Your task to perform on an android device: change the clock style Image 0: 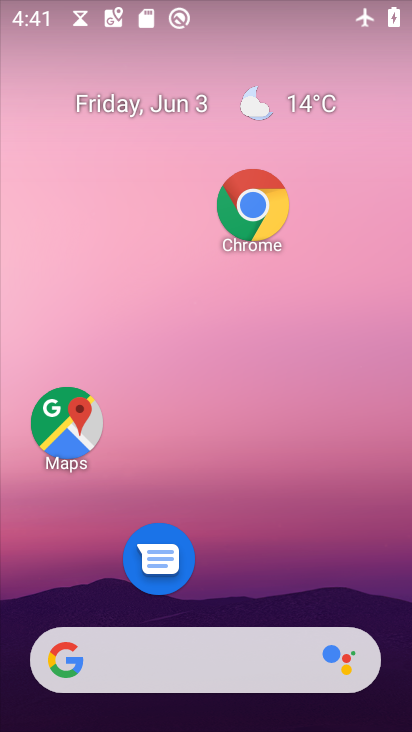
Step 0: drag from (237, 702) to (121, 240)
Your task to perform on an android device: change the clock style Image 1: 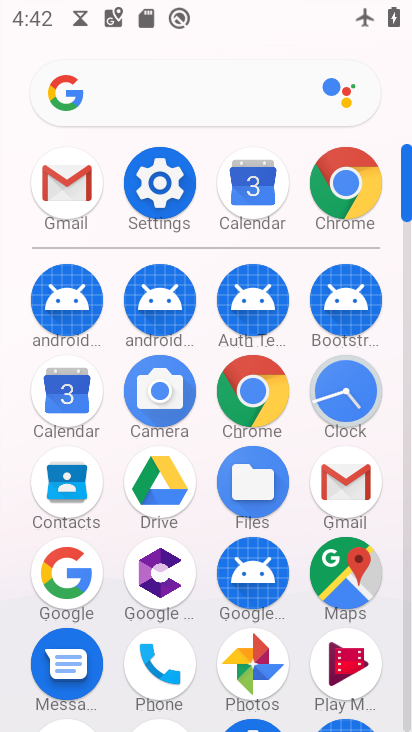
Step 1: click (350, 392)
Your task to perform on an android device: change the clock style Image 2: 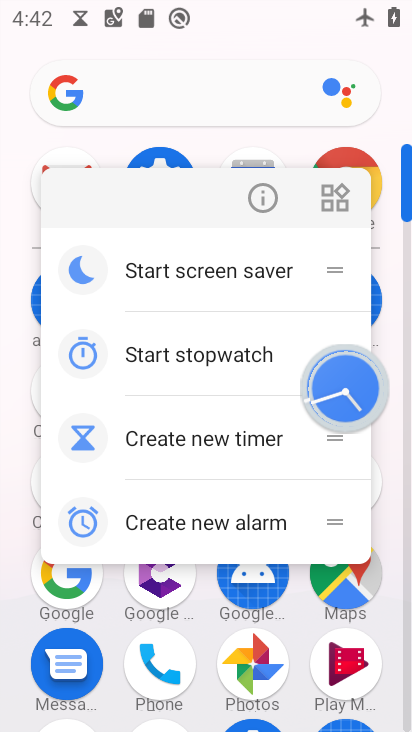
Step 2: click (353, 389)
Your task to perform on an android device: change the clock style Image 3: 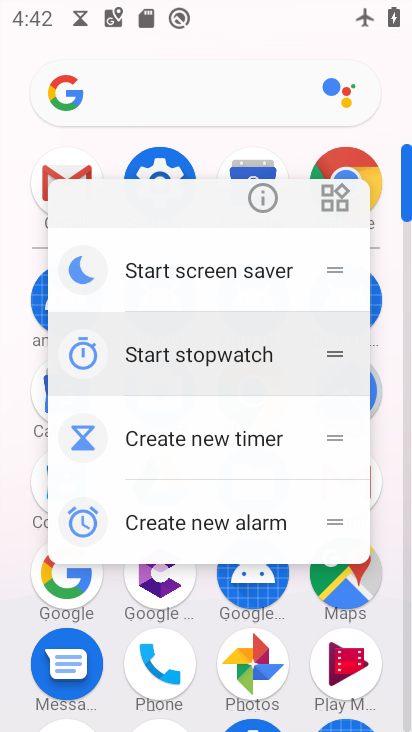
Step 3: click (351, 389)
Your task to perform on an android device: change the clock style Image 4: 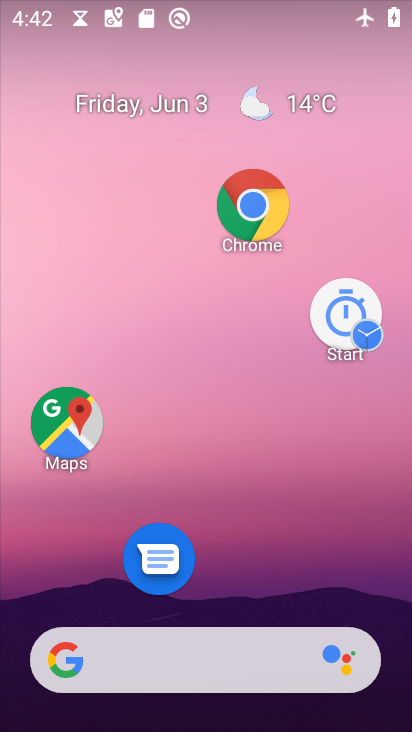
Step 4: drag from (228, 566) to (167, 135)
Your task to perform on an android device: change the clock style Image 5: 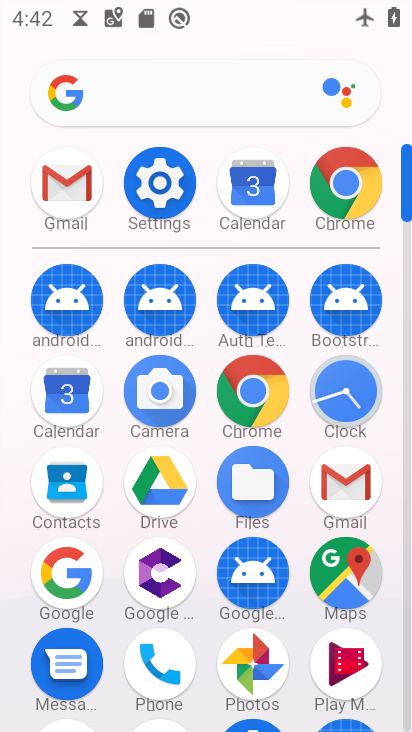
Step 5: click (325, 406)
Your task to perform on an android device: change the clock style Image 6: 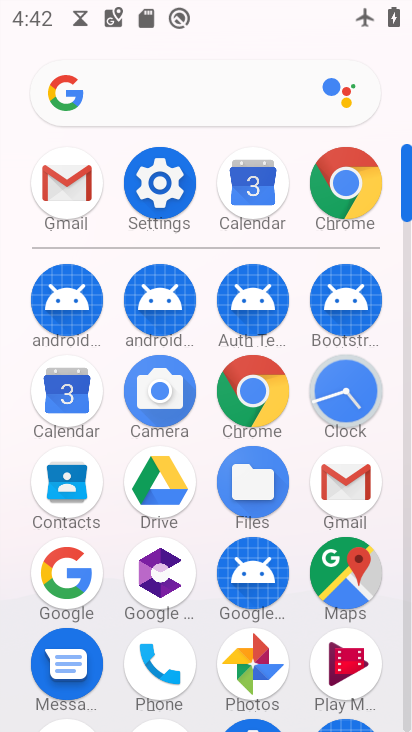
Step 6: click (326, 406)
Your task to perform on an android device: change the clock style Image 7: 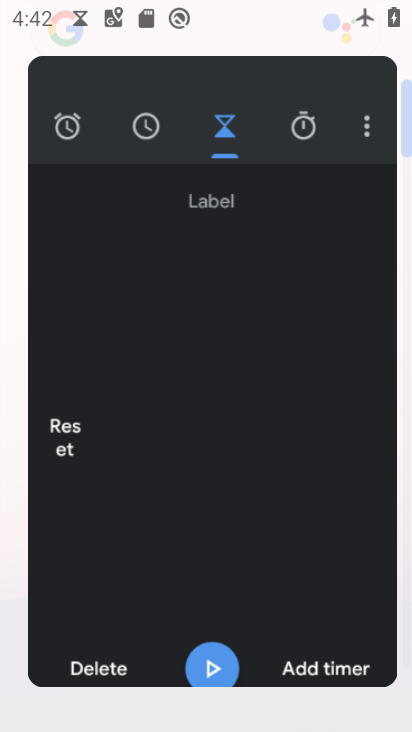
Step 7: click (328, 404)
Your task to perform on an android device: change the clock style Image 8: 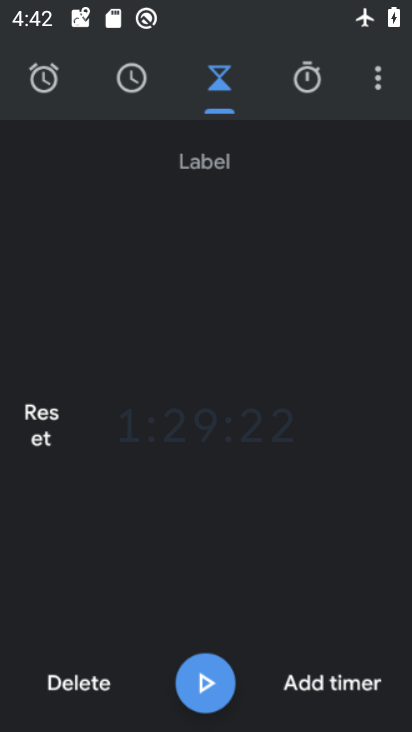
Step 8: click (330, 402)
Your task to perform on an android device: change the clock style Image 9: 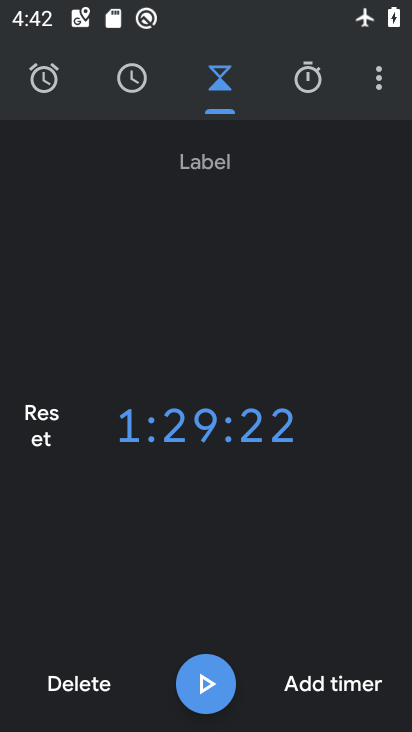
Step 9: click (335, 400)
Your task to perform on an android device: change the clock style Image 10: 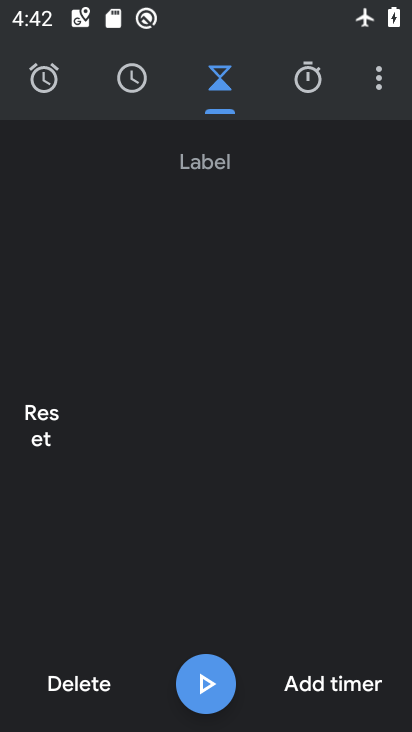
Step 10: click (383, 89)
Your task to perform on an android device: change the clock style Image 11: 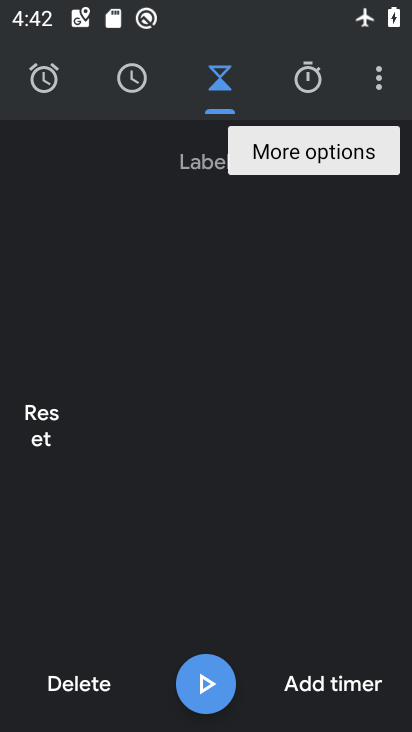
Step 11: click (377, 97)
Your task to perform on an android device: change the clock style Image 12: 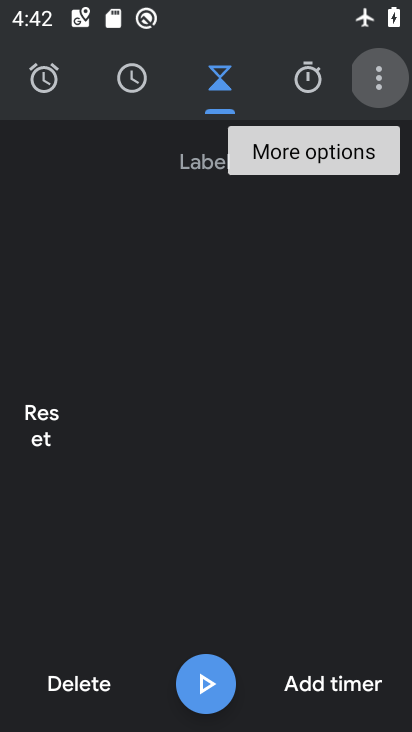
Step 12: click (377, 97)
Your task to perform on an android device: change the clock style Image 13: 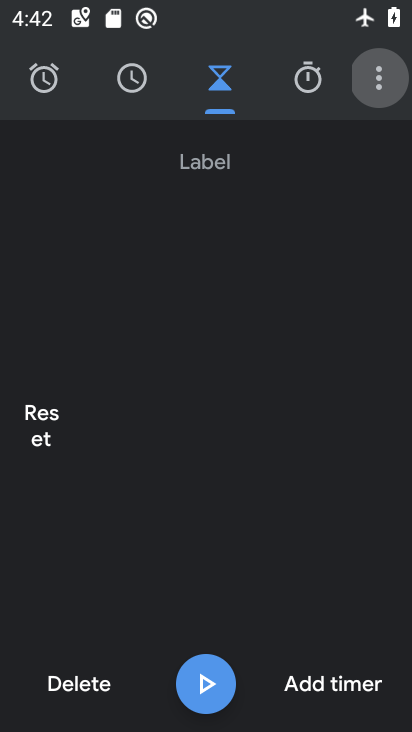
Step 13: click (377, 97)
Your task to perform on an android device: change the clock style Image 14: 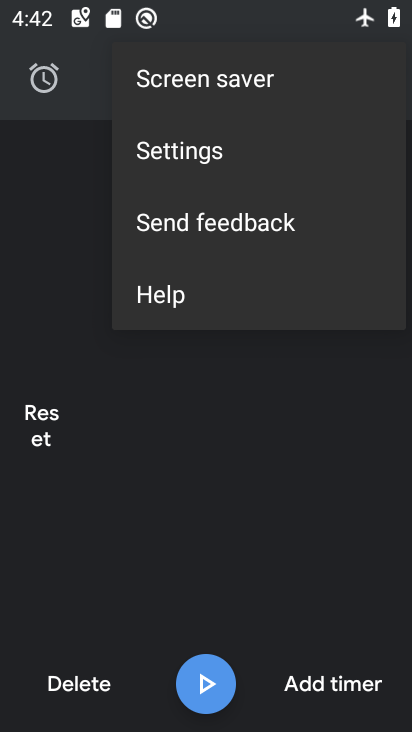
Step 14: click (377, 97)
Your task to perform on an android device: change the clock style Image 15: 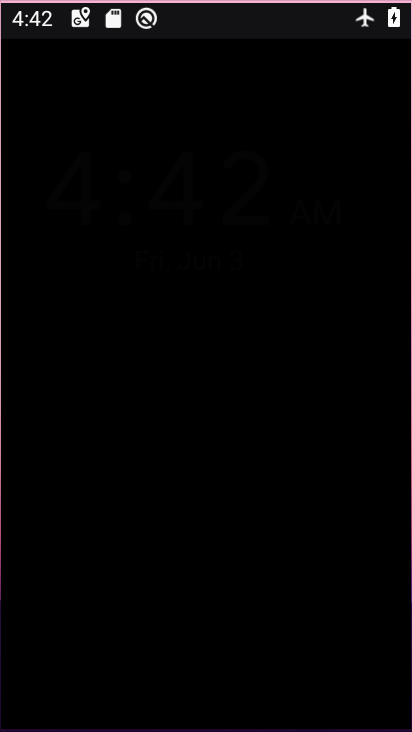
Step 15: click (208, 146)
Your task to perform on an android device: change the clock style Image 16: 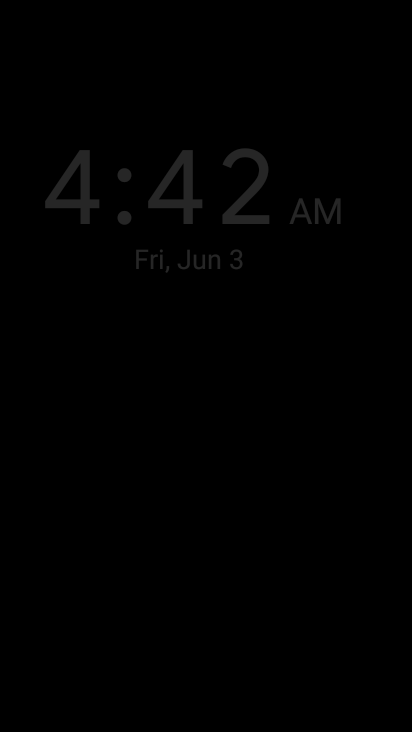
Step 16: click (208, 148)
Your task to perform on an android device: change the clock style Image 17: 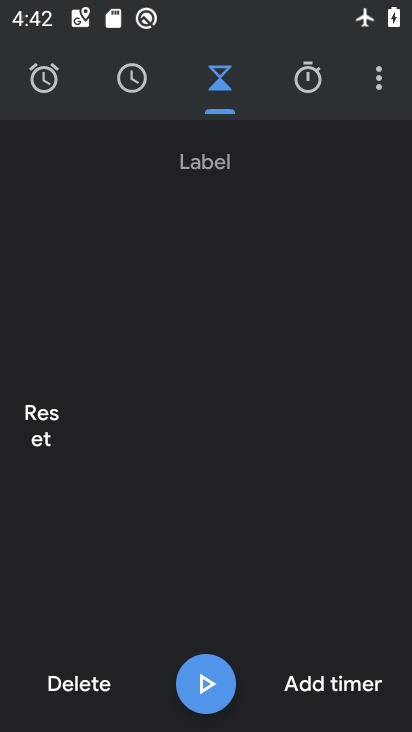
Step 17: click (378, 77)
Your task to perform on an android device: change the clock style Image 18: 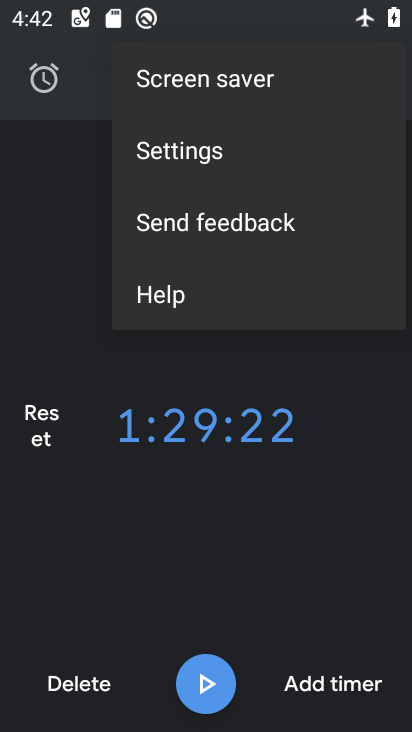
Step 18: click (378, 77)
Your task to perform on an android device: change the clock style Image 19: 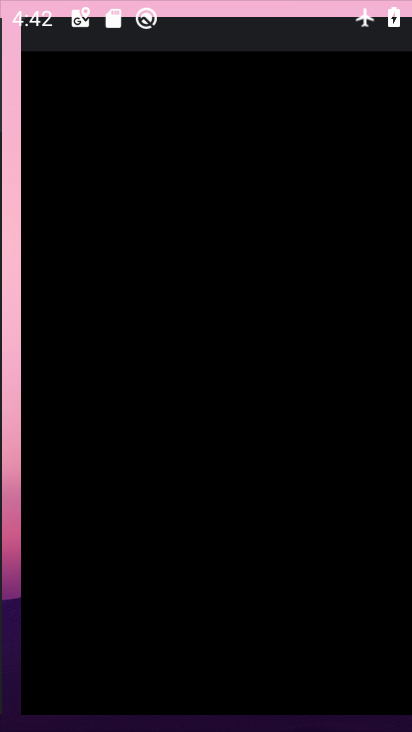
Step 19: click (184, 154)
Your task to perform on an android device: change the clock style Image 20: 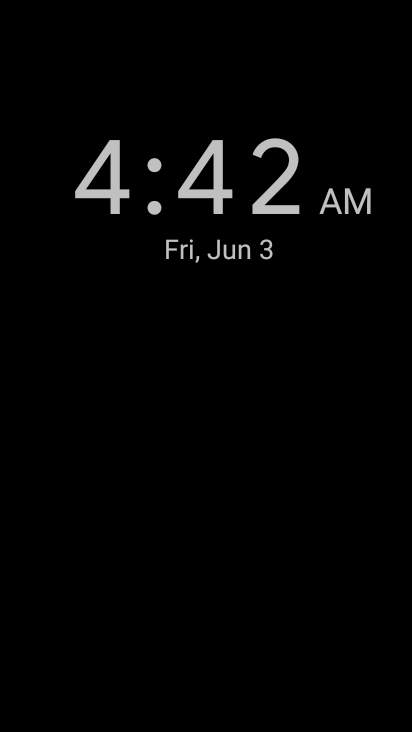
Step 20: click (184, 154)
Your task to perform on an android device: change the clock style Image 21: 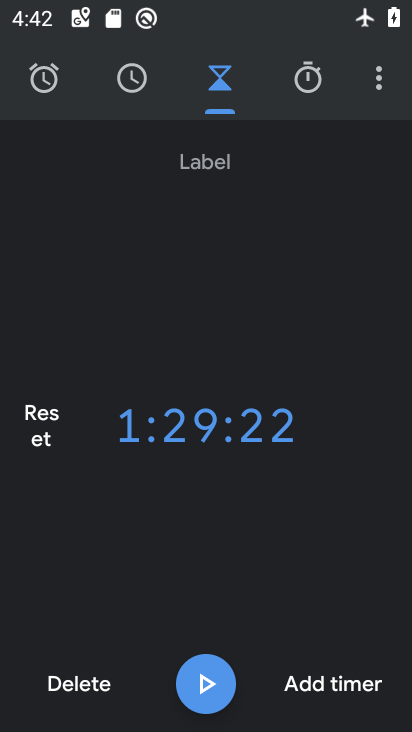
Step 21: click (375, 80)
Your task to perform on an android device: change the clock style Image 22: 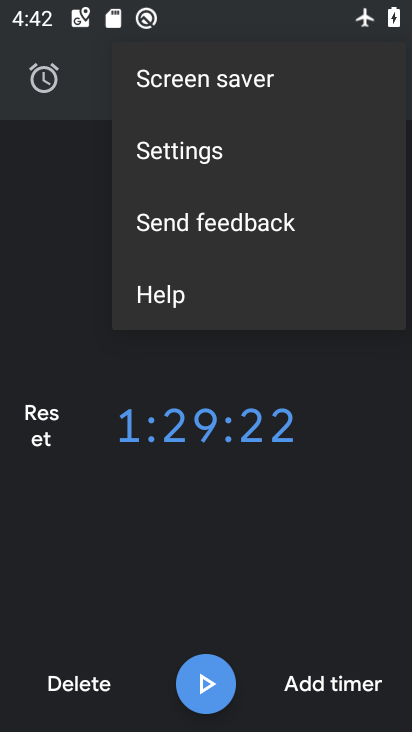
Step 22: click (205, 148)
Your task to perform on an android device: change the clock style Image 23: 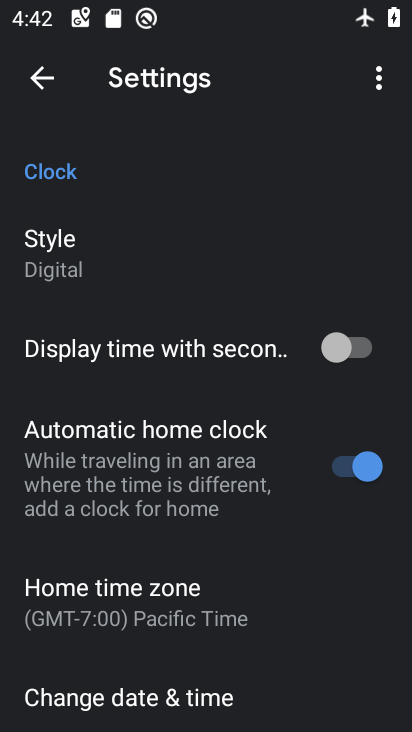
Step 23: click (102, 242)
Your task to perform on an android device: change the clock style Image 24: 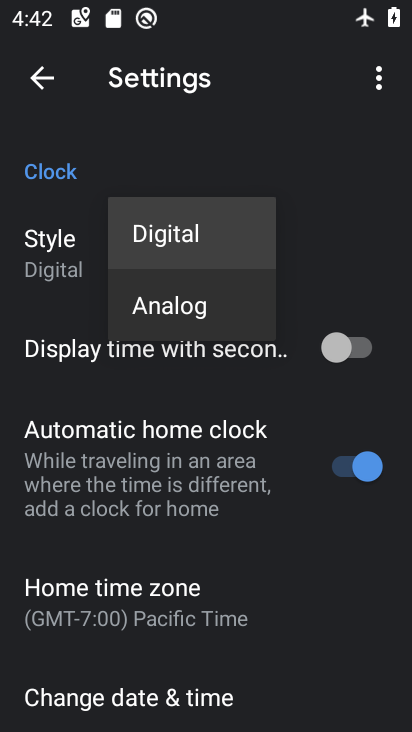
Step 24: click (166, 306)
Your task to perform on an android device: change the clock style Image 25: 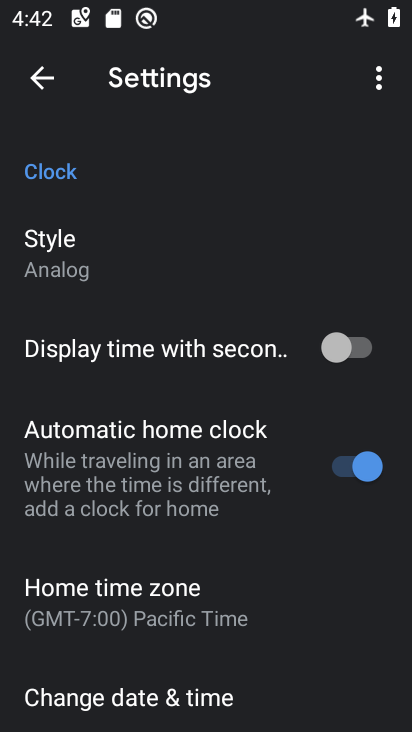
Step 25: task complete